Your task to perform on an android device: Open network settings Image 0: 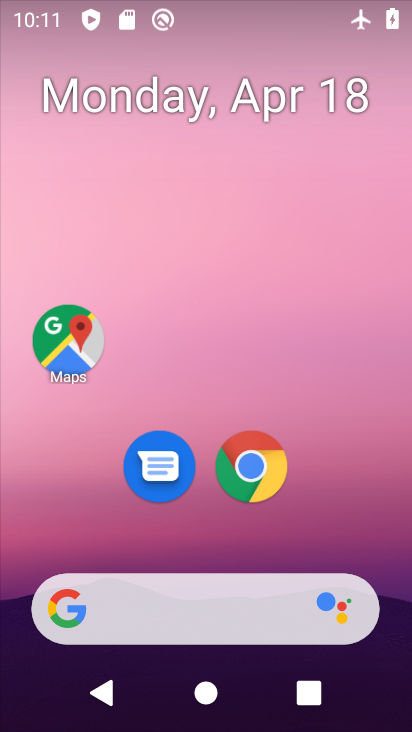
Step 0: click (227, 378)
Your task to perform on an android device: Open network settings Image 1: 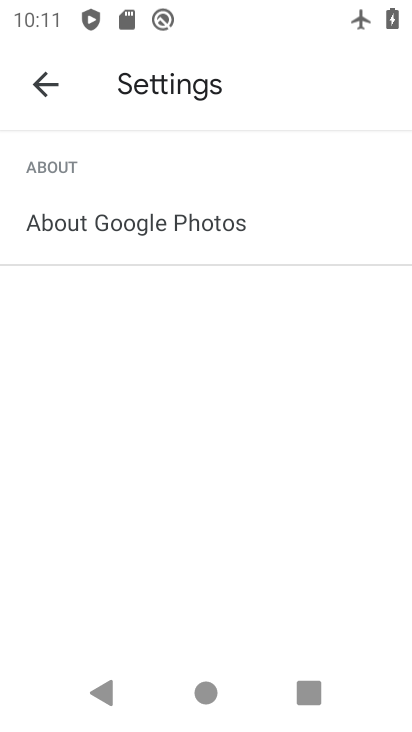
Step 1: press home button
Your task to perform on an android device: Open network settings Image 2: 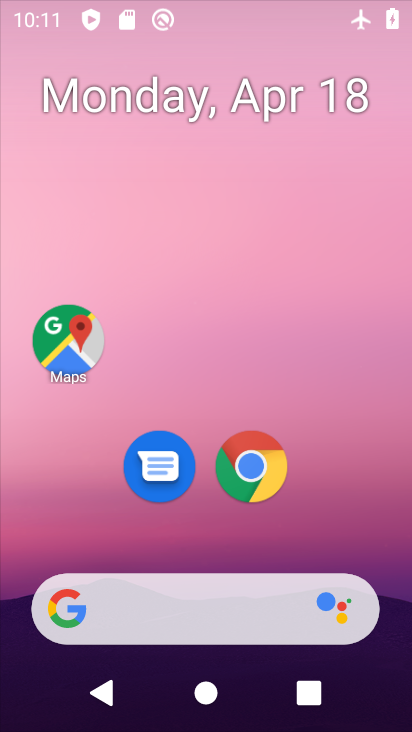
Step 2: drag from (205, 670) to (256, 275)
Your task to perform on an android device: Open network settings Image 3: 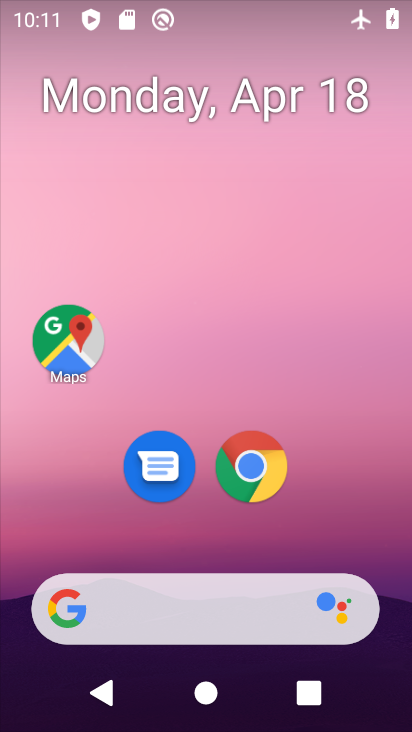
Step 3: drag from (248, 651) to (279, 274)
Your task to perform on an android device: Open network settings Image 4: 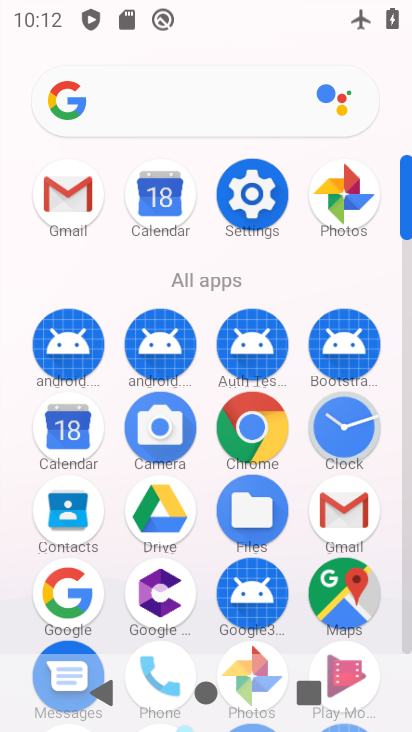
Step 4: click (241, 197)
Your task to perform on an android device: Open network settings Image 5: 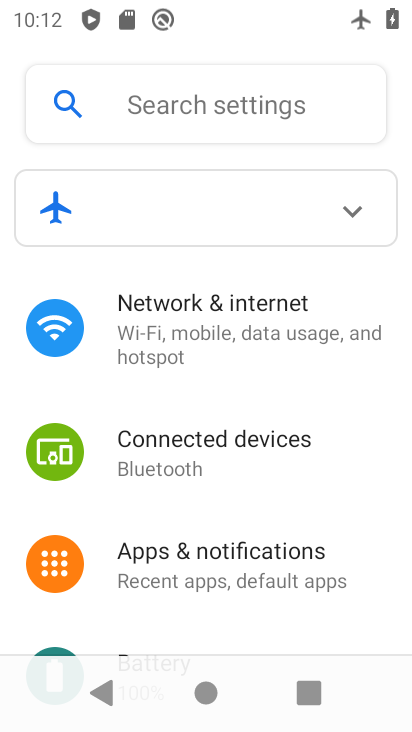
Step 5: click (225, 317)
Your task to perform on an android device: Open network settings Image 6: 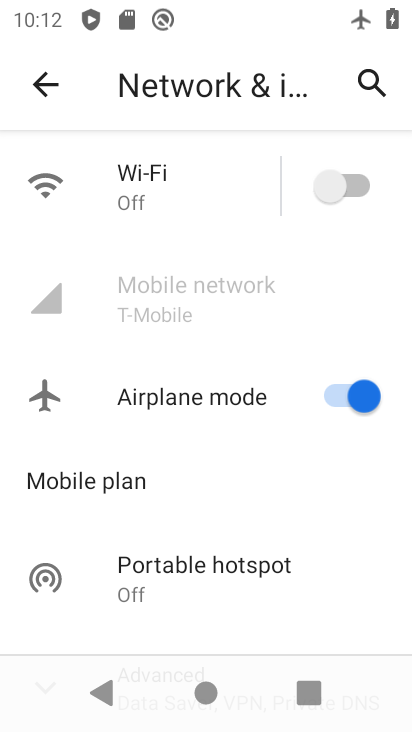
Step 6: click (181, 320)
Your task to perform on an android device: Open network settings Image 7: 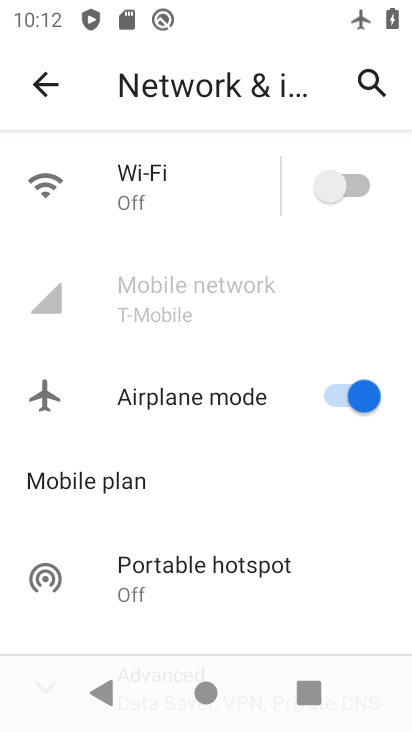
Step 7: task complete